Your task to perform on an android device: turn off sleep mode Image 0: 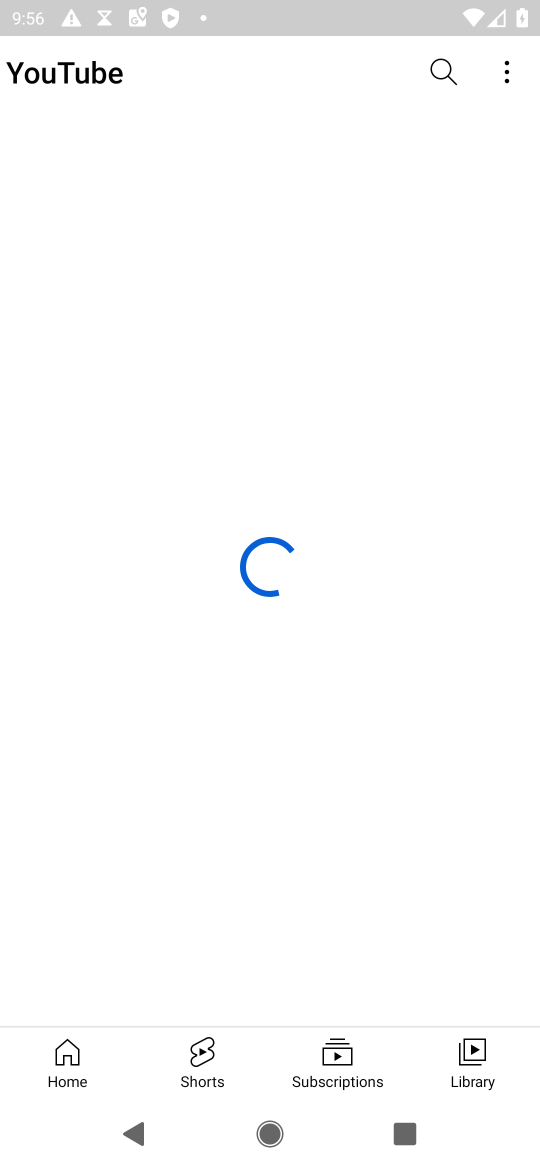
Step 0: press home button
Your task to perform on an android device: turn off sleep mode Image 1: 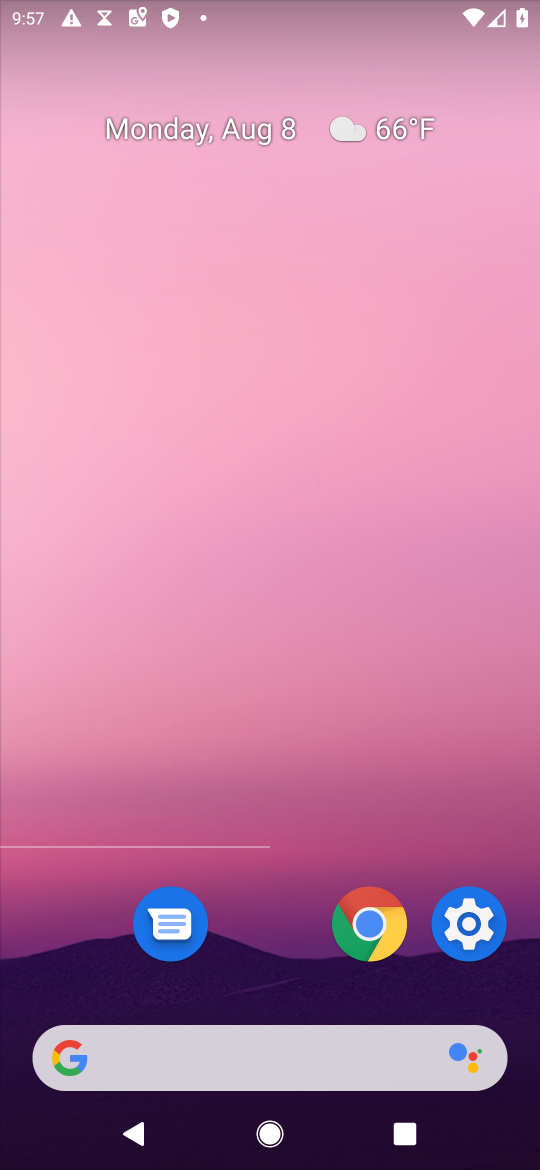
Step 1: drag from (326, 959) to (318, 154)
Your task to perform on an android device: turn off sleep mode Image 2: 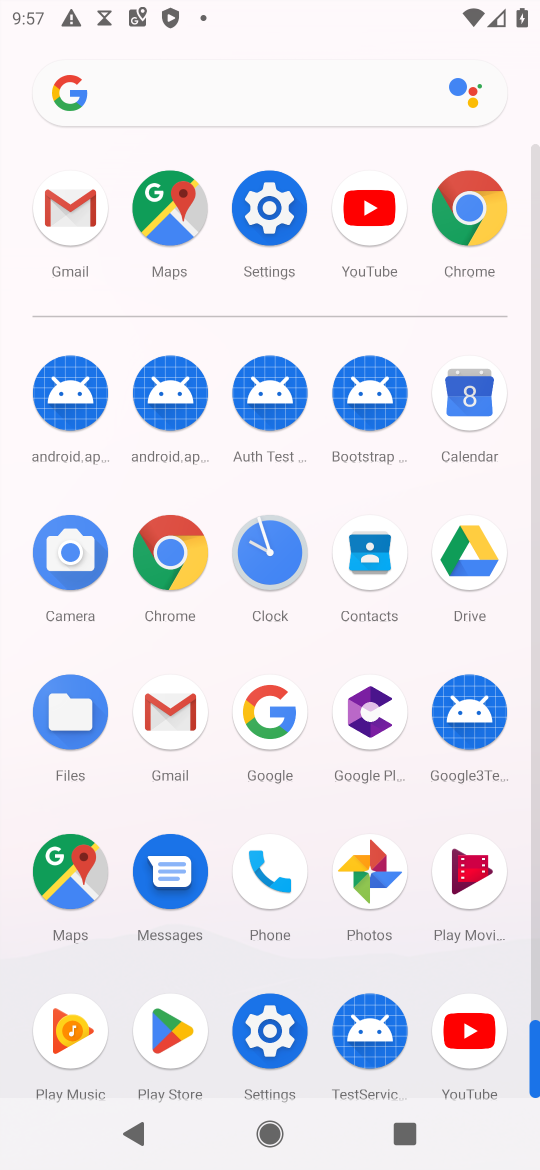
Step 2: click (270, 1039)
Your task to perform on an android device: turn off sleep mode Image 3: 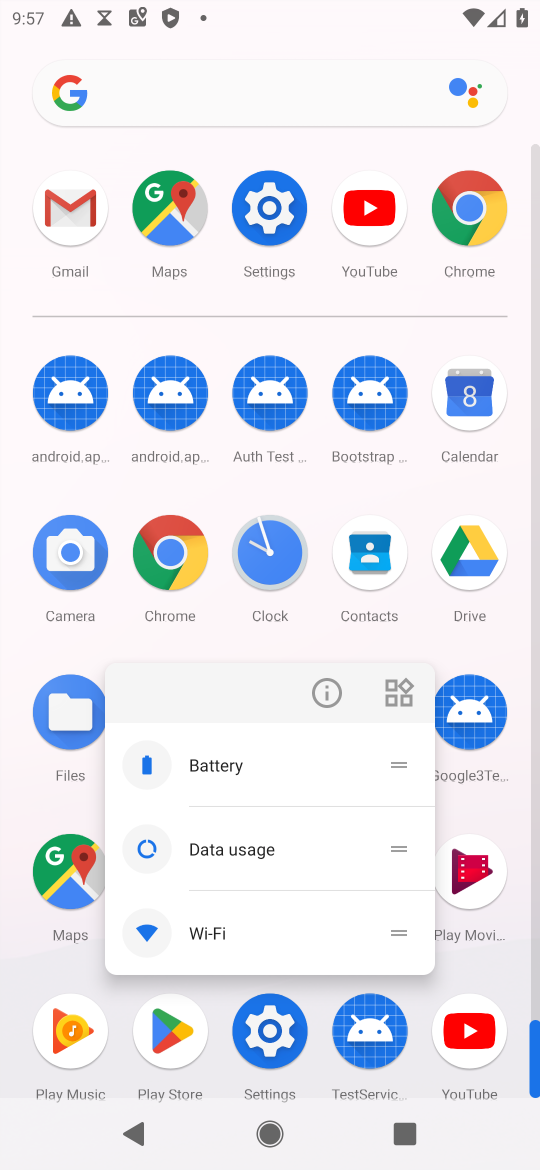
Step 3: click (270, 1039)
Your task to perform on an android device: turn off sleep mode Image 4: 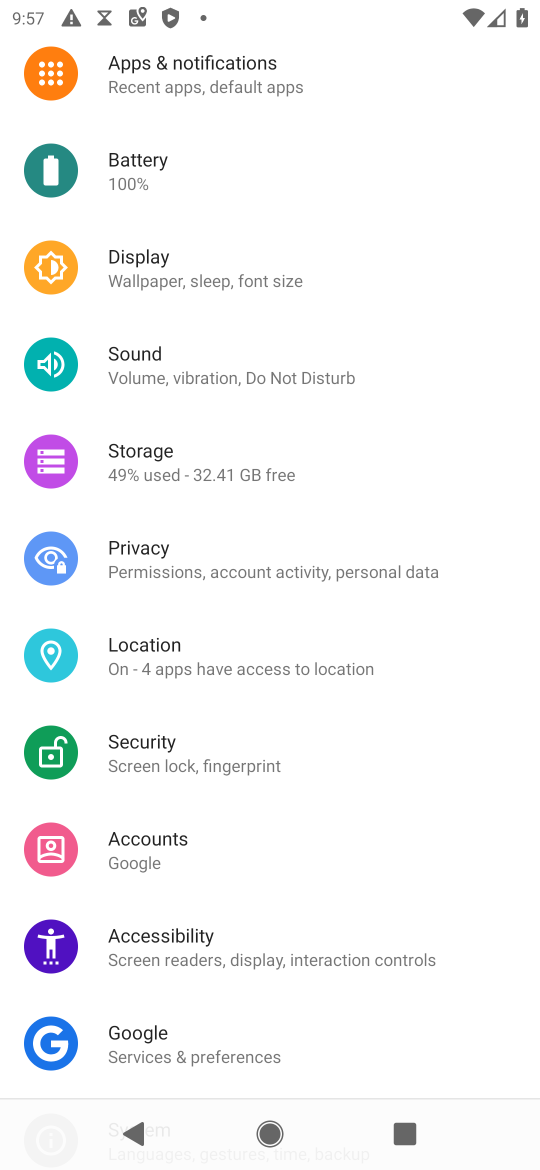
Step 4: click (157, 259)
Your task to perform on an android device: turn off sleep mode Image 5: 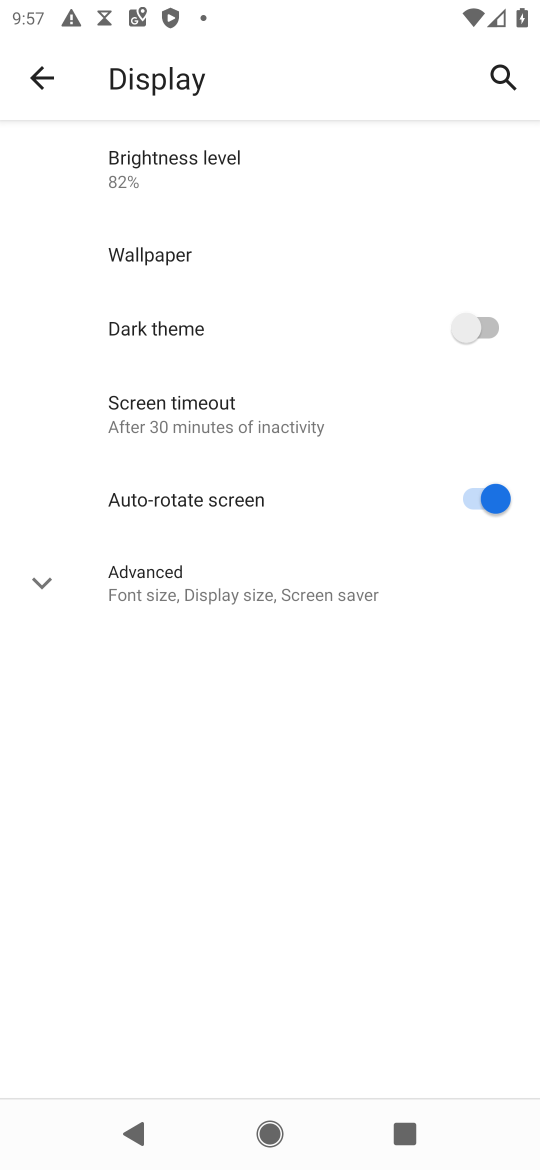
Step 5: click (195, 413)
Your task to perform on an android device: turn off sleep mode Image 6: 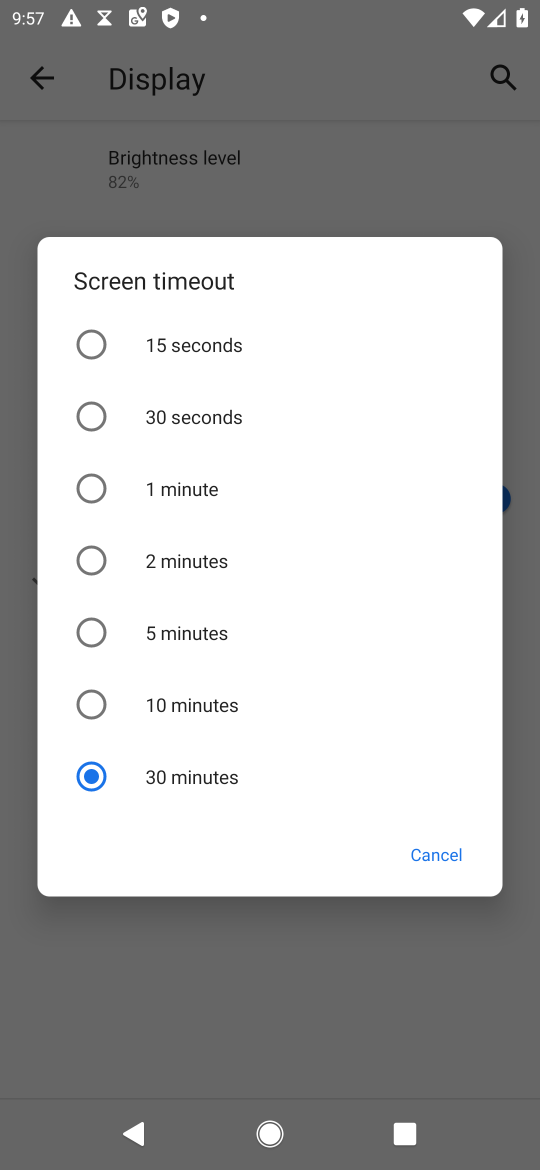
Step 6: task complete